Your task to perform on an android device: Go to network settings Image 0: 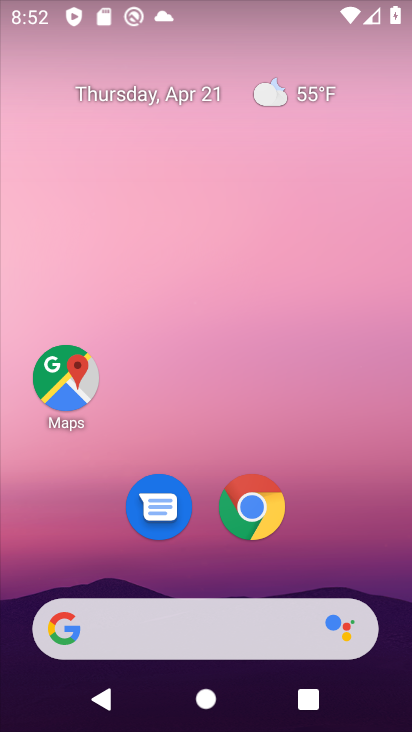
Step 0: drag from (312, 525) to (323, 183)
Your task to perform on an android device: Go to network settings Image 1: 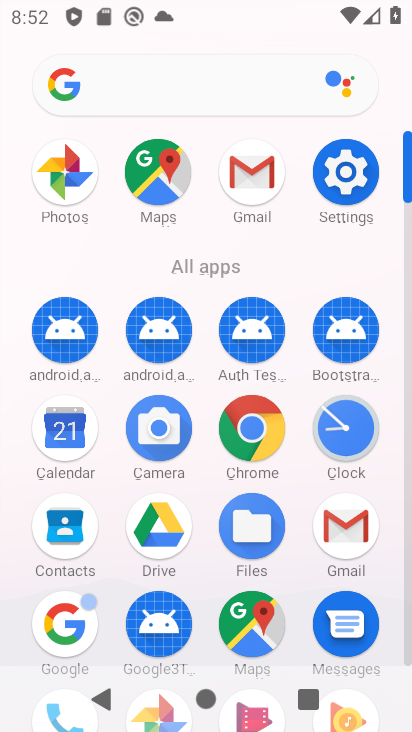
Step 1: click (349, 171)
Your task to perform on an android device: Go to network settings Image 2: 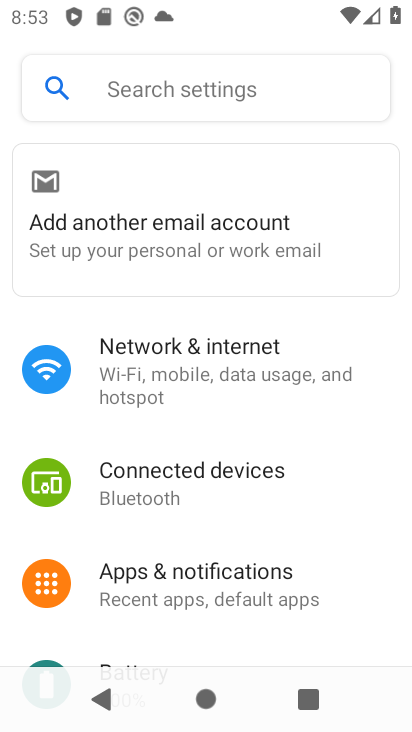
Step 2: click (173, 363)
Your task to perform on an android device: Go to network settings Image 3: 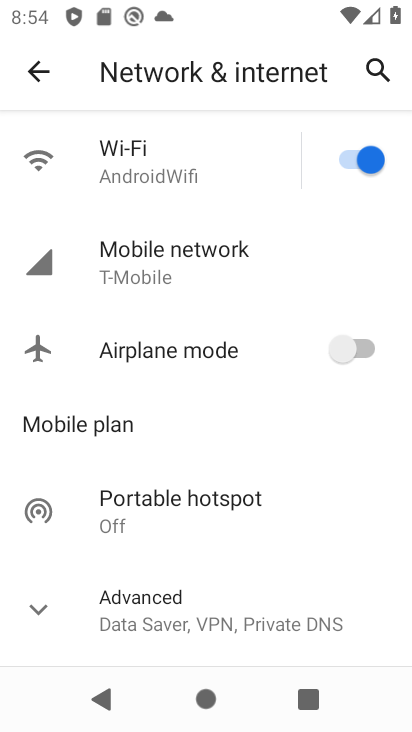
Step 3: task complete